Your task to perform on an android device: open app "Contacts" Image 0: 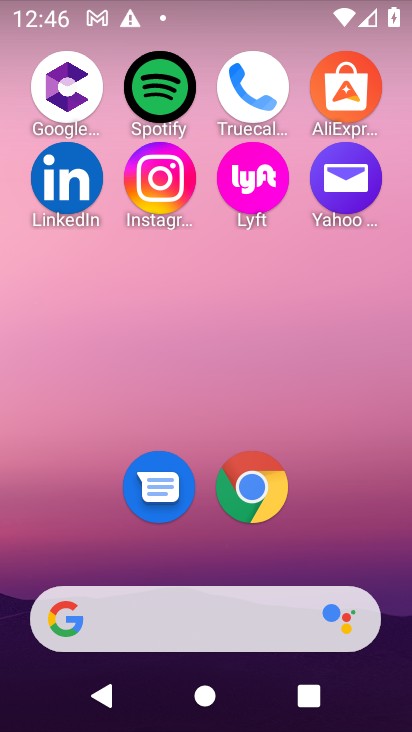
Step 0: drag from (284, 663) to (334, 0)
Your task to perform on an android device: open app "Contacts" Image 1: 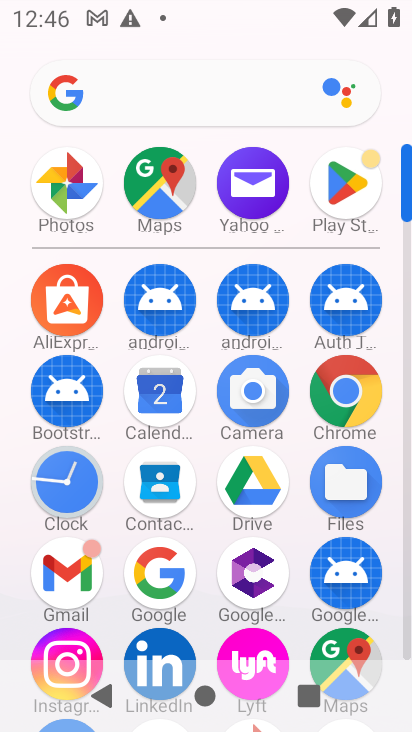
Step 1: click (163, 482)
Your task to perform on an android device: open app "Contacts" Image 2: 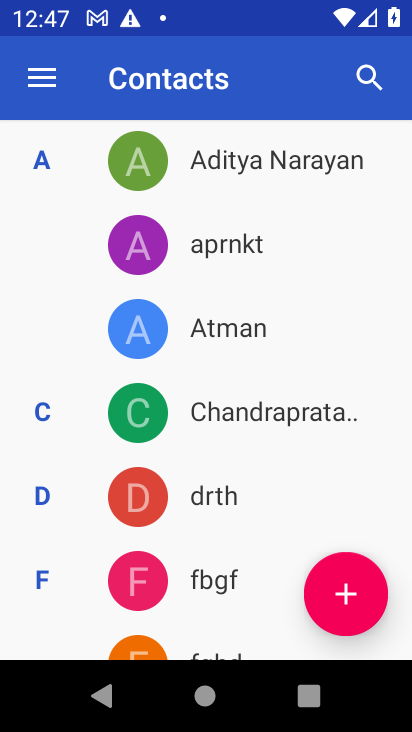
Step 2: task complete